Your task to perform on an android device: Go to privacy settings Image 0: 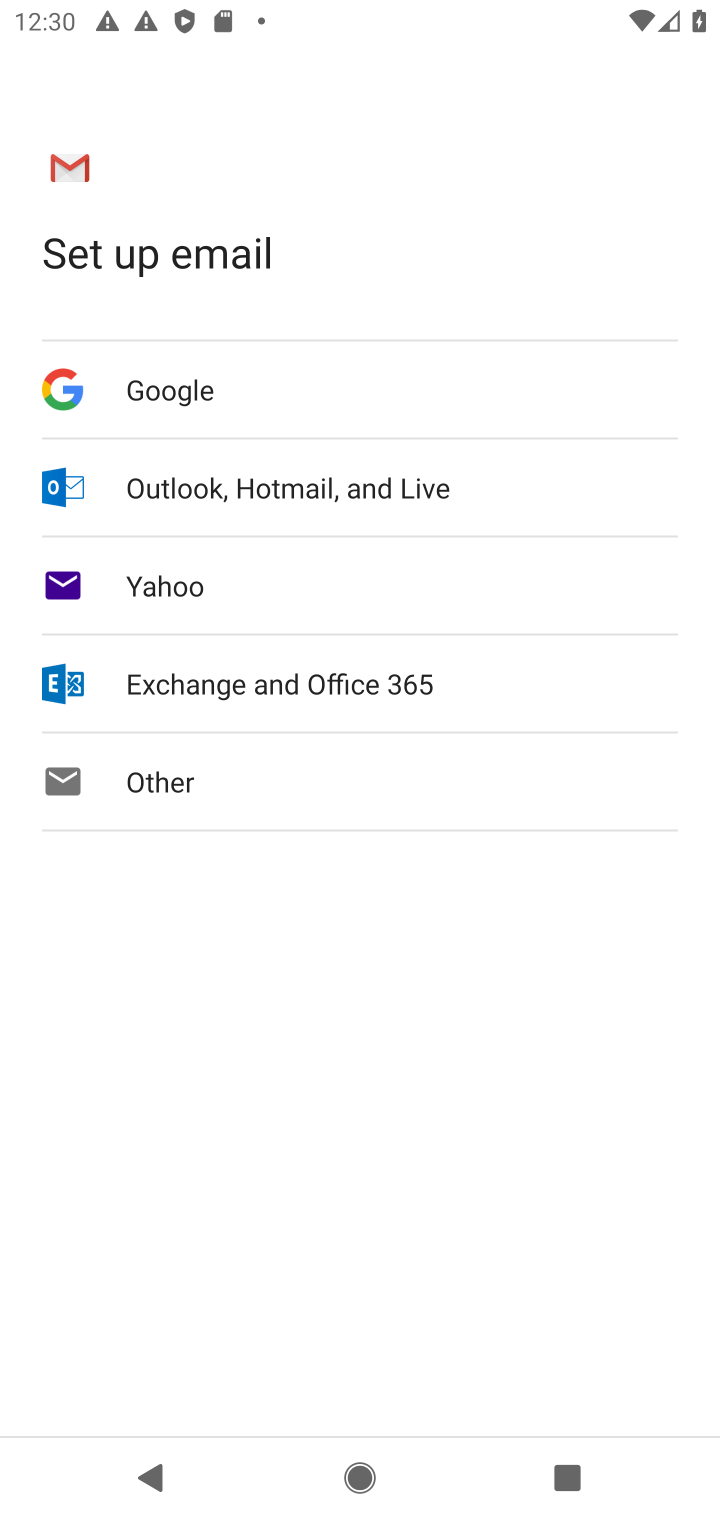
Step 0: press home button
Your task to perform on an android device: Go to privacy settings Image 1: 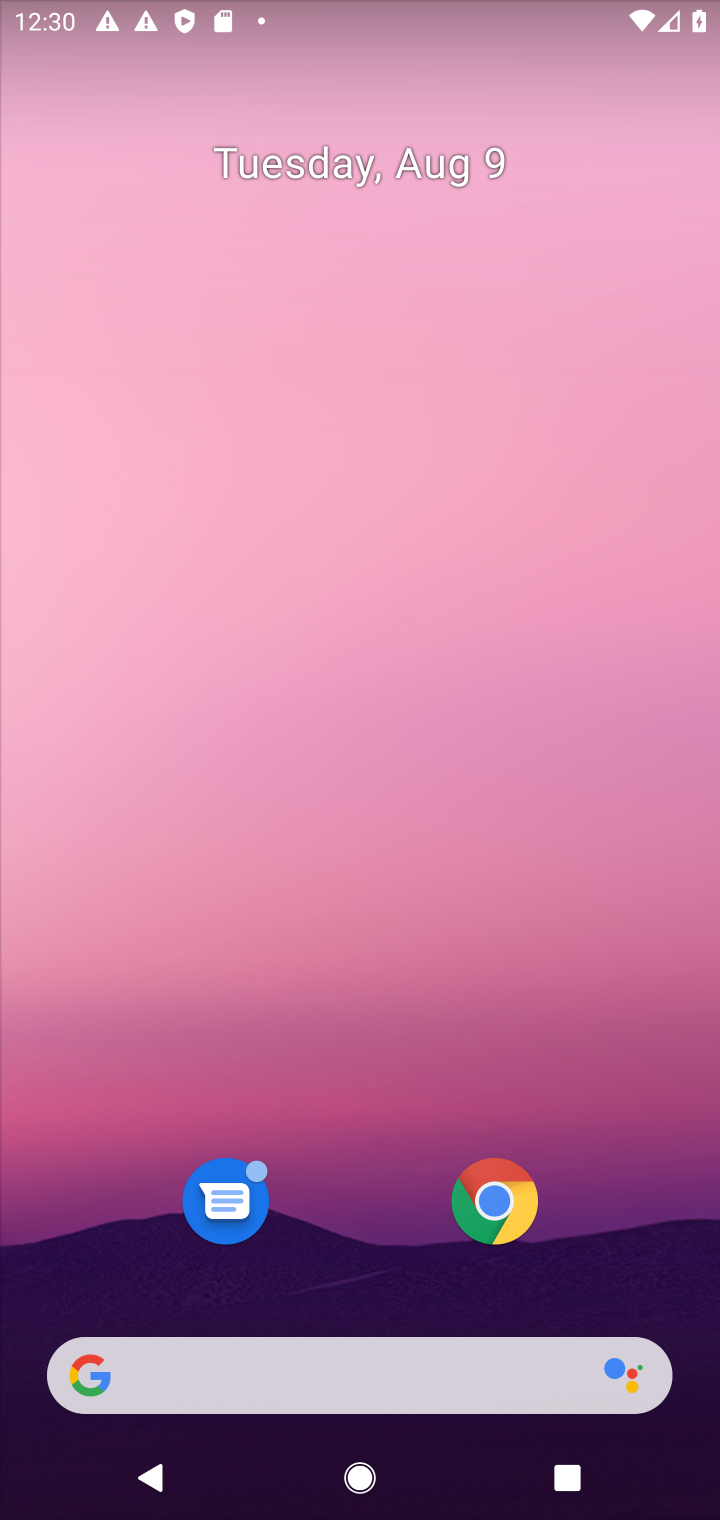
Step 1: drag from (367, 1250) to (406, 505)
Your task to perform on an android device: Go to privacy settings Image 2: 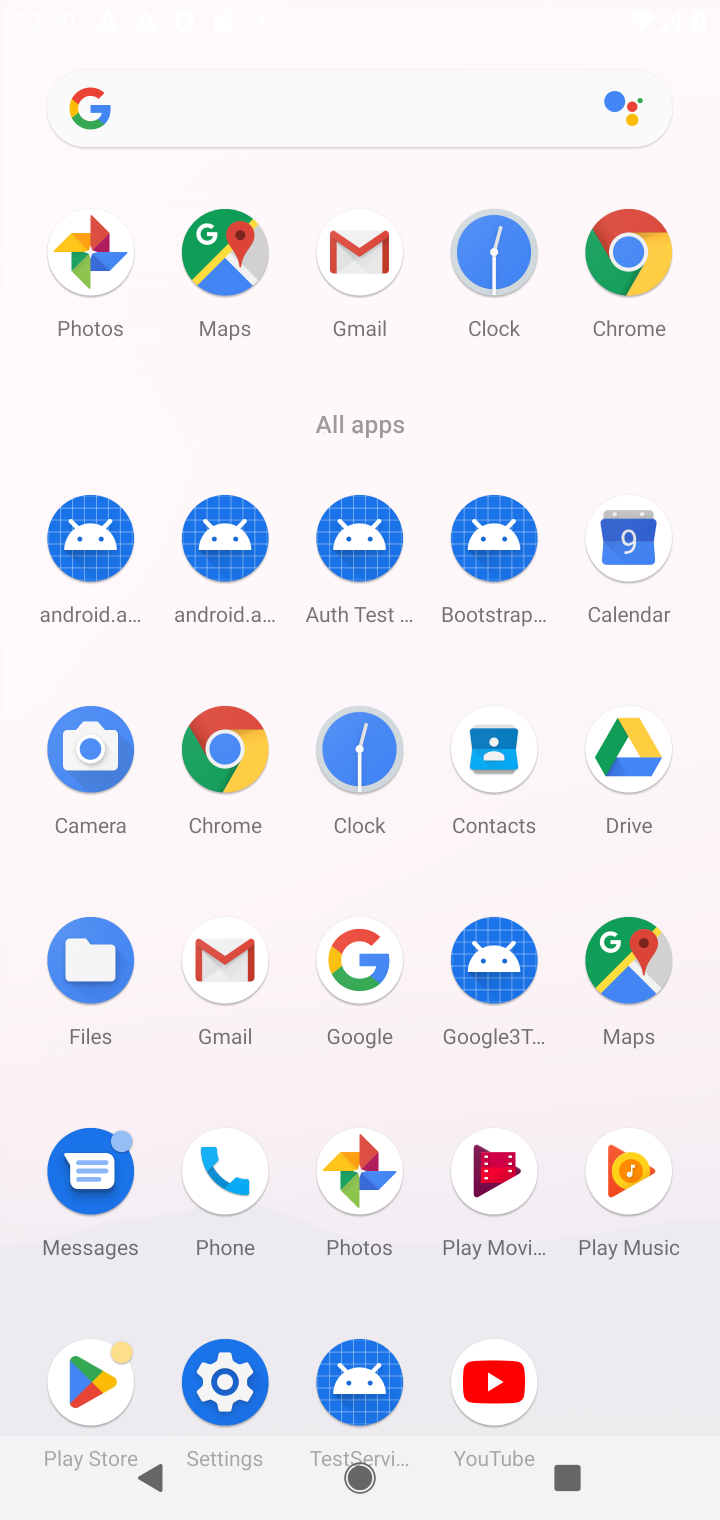
Step 2: click (229, 1380)
Your task to perform on an android device: Go to privacy settings Image 3: 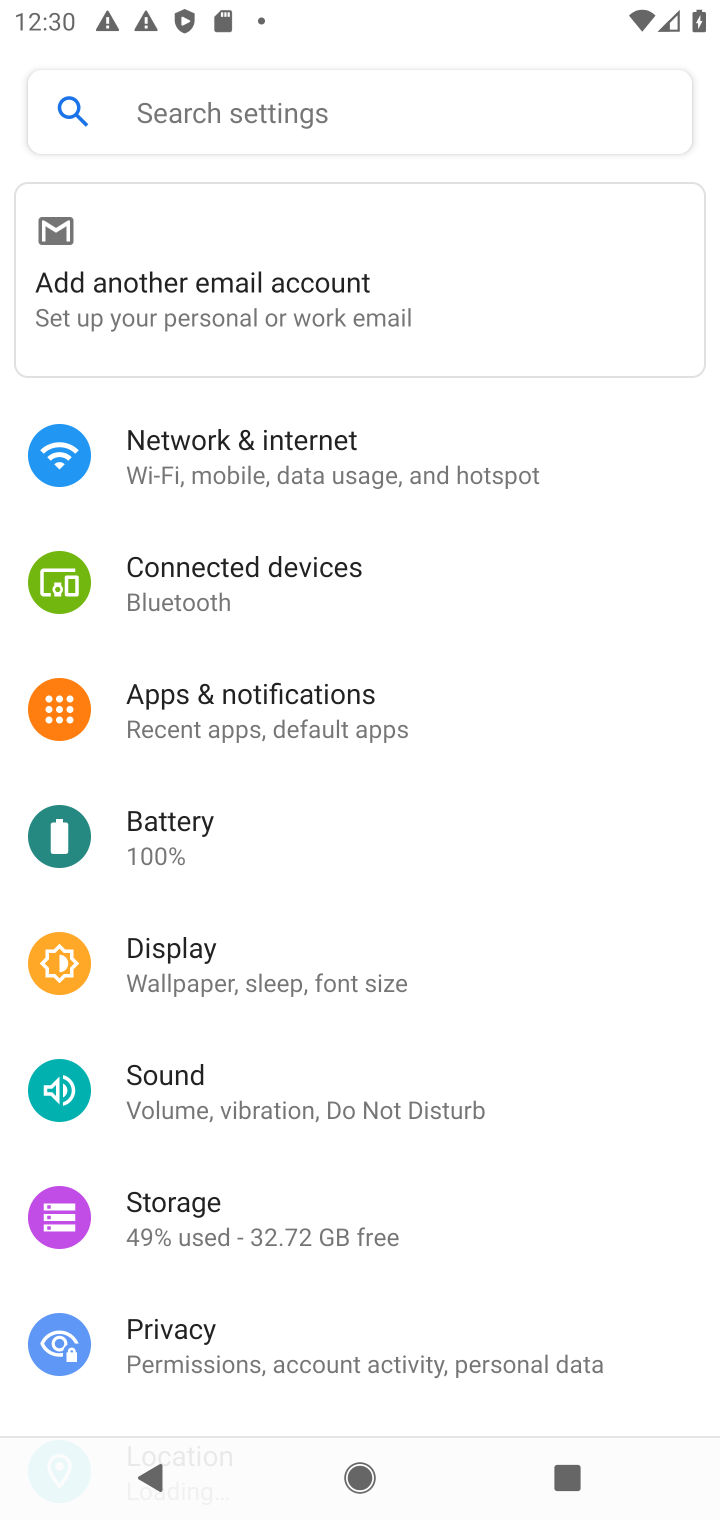
Step 3: click (183, 1146)
Your task to perform on an android device: Go to privacy settings Image 4: 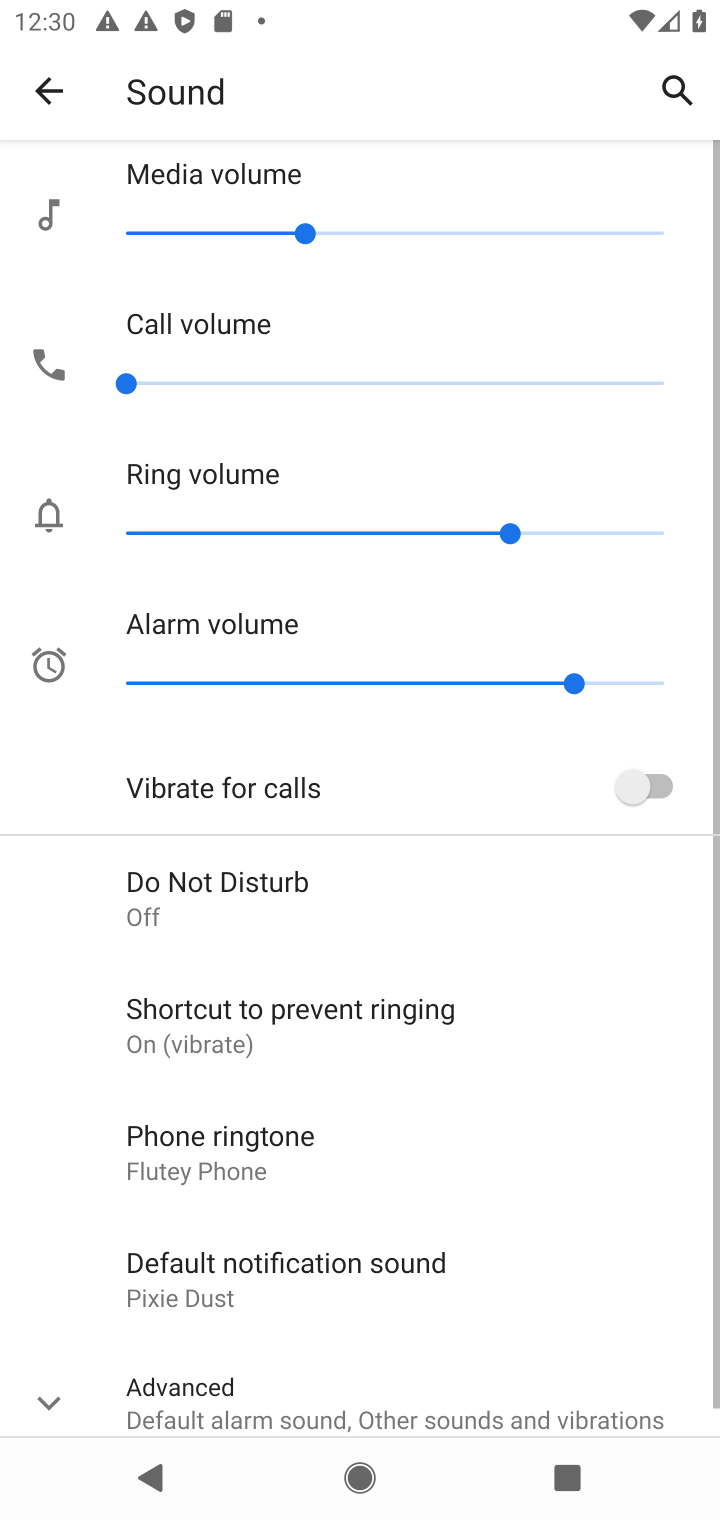
Step 4: click (50, 115)
Your task to perform on an android device: Go to privacy settings Image 5: 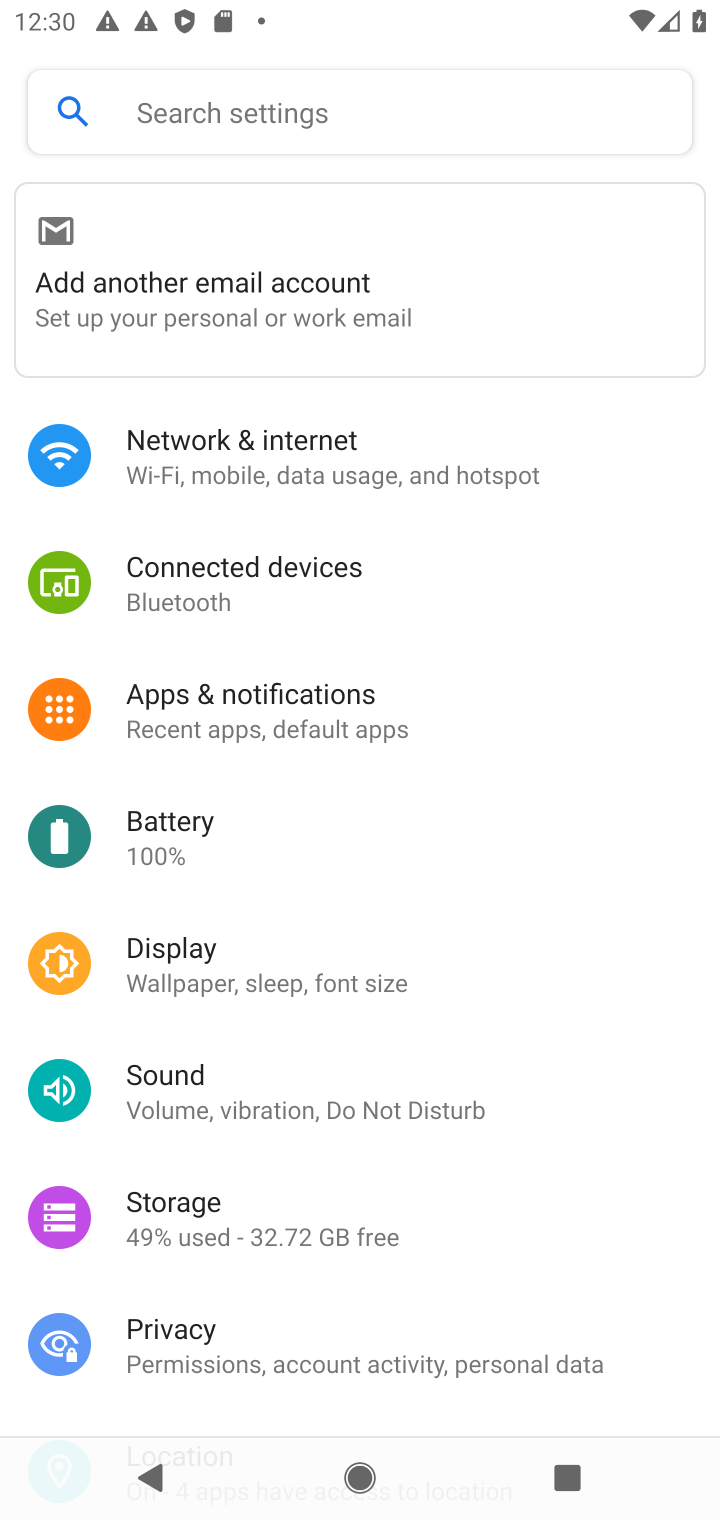
Step 5: click (207, 1354)
Your task to perform on an android device: Go to privacy settings Image 6: 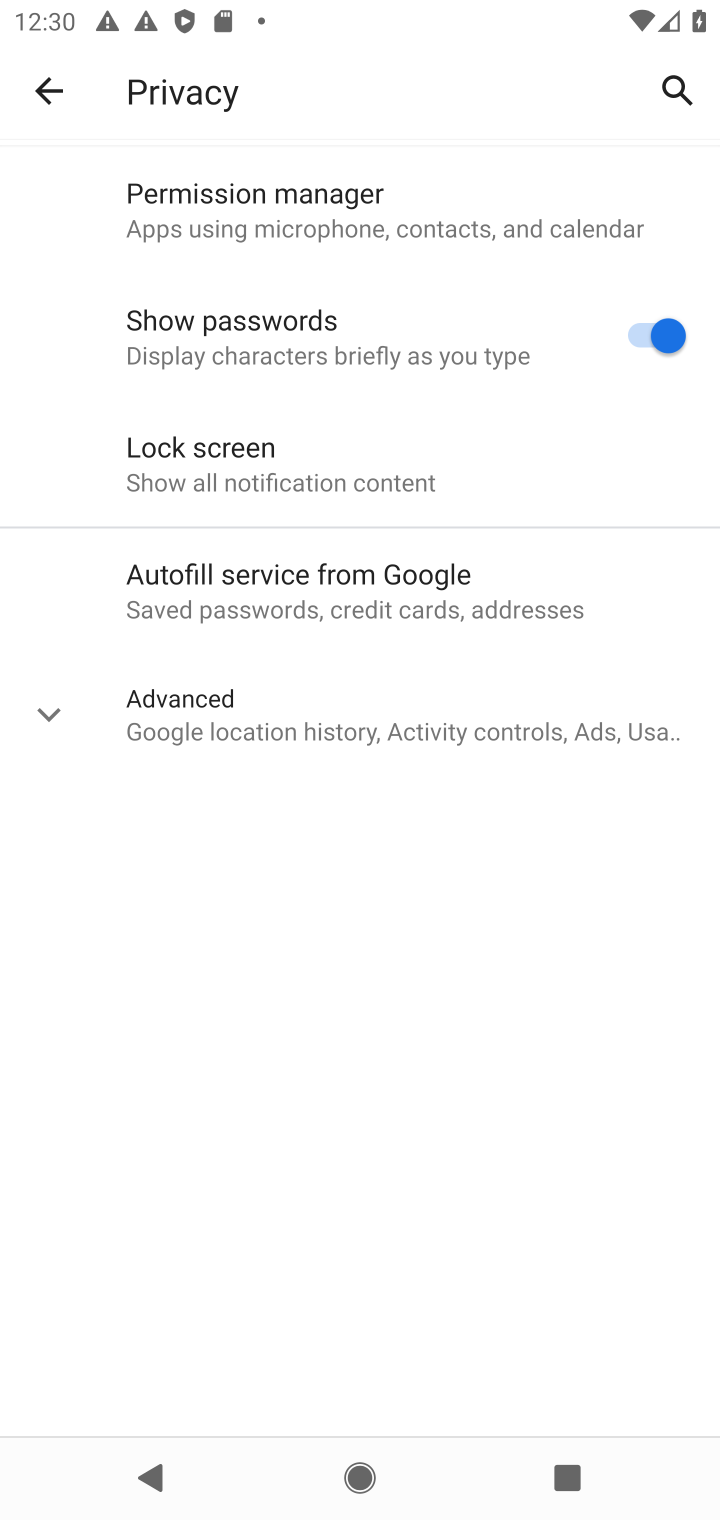
Step 6: task complete